Your task to perform on an android device: turn off location Image 0: 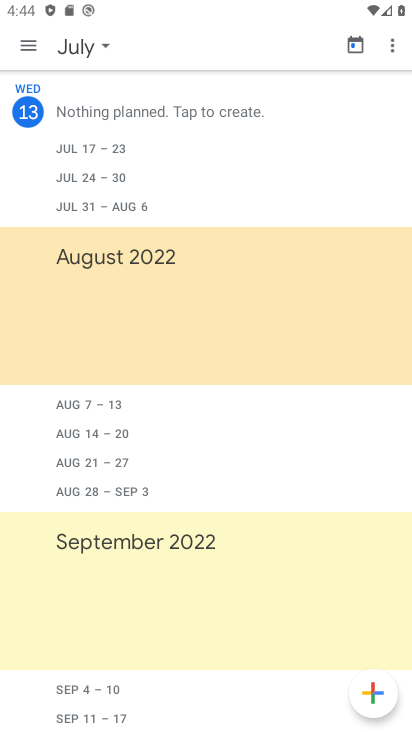
Step 0: press home button
Your task to perform on an android device: turn off location Image 1: 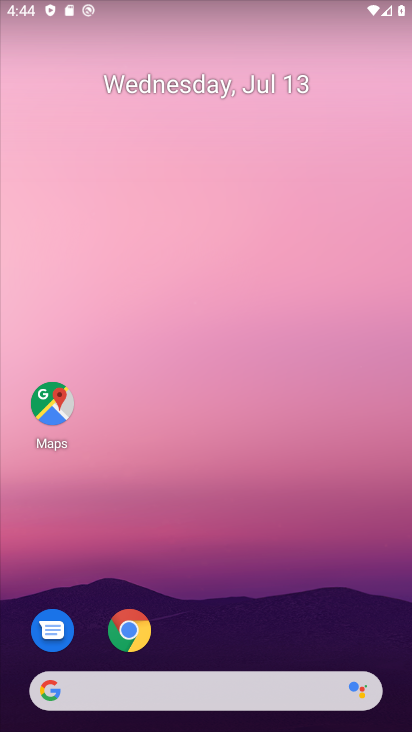
Step 1: drag from (173, 664) to (248, 134)
Your task to perform on an android device: turn off location Image 2: 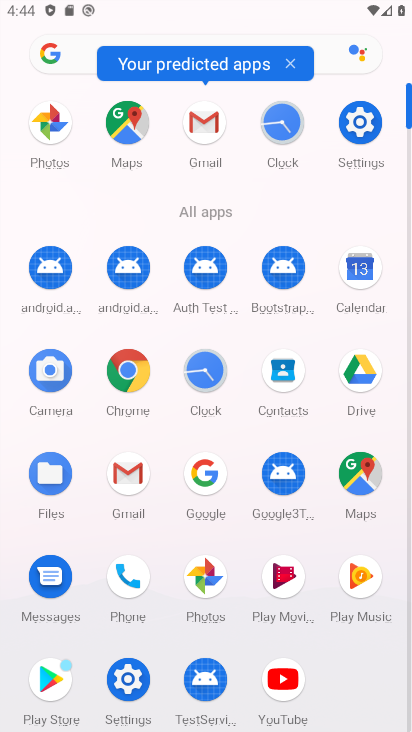
Step 2: click (124, 665)
Your task to perform on an android device: turn off location Image 3: 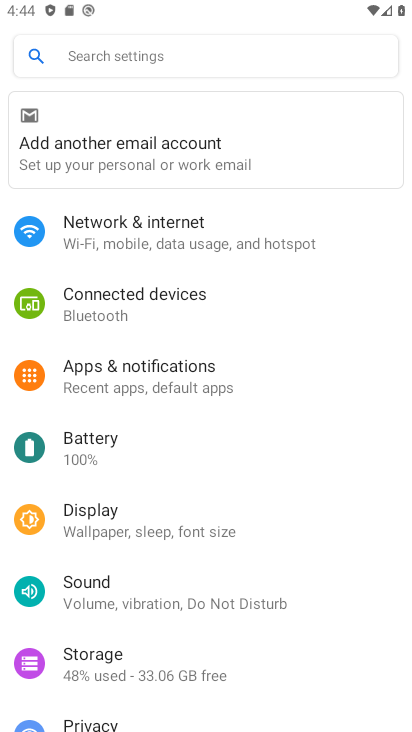
Step 3: drag from (124, 625) to (200, 369)
Your task to perform on an android device: turn off location Image 4: 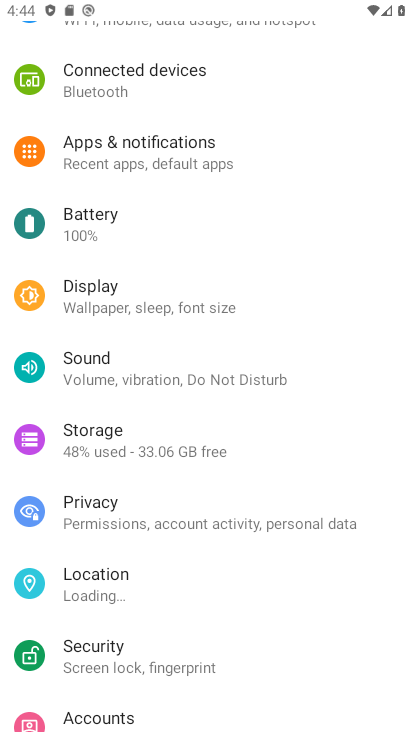
Step 4: click (147, 581)
Your task to perform on an android device: turn off location Image 5: 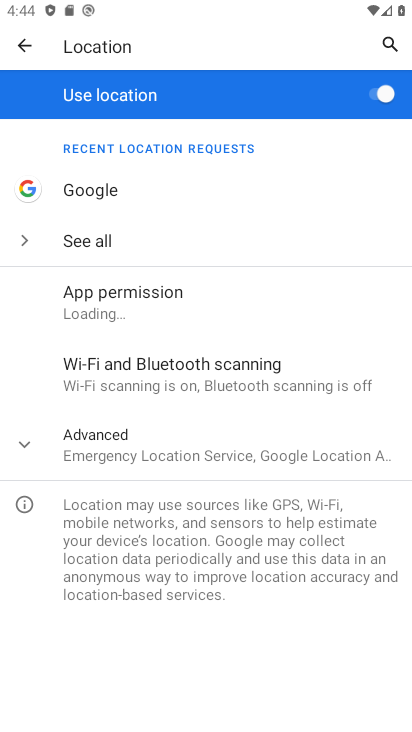
Step 5: click (368, 96)
Your task to perform on an android device: turn off location Image 6: 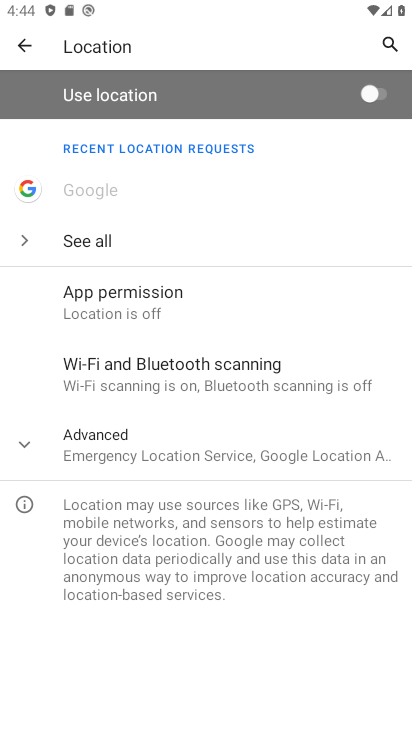
Step 6: task complete